Your task to perform on an android device: turn off location Image 0: 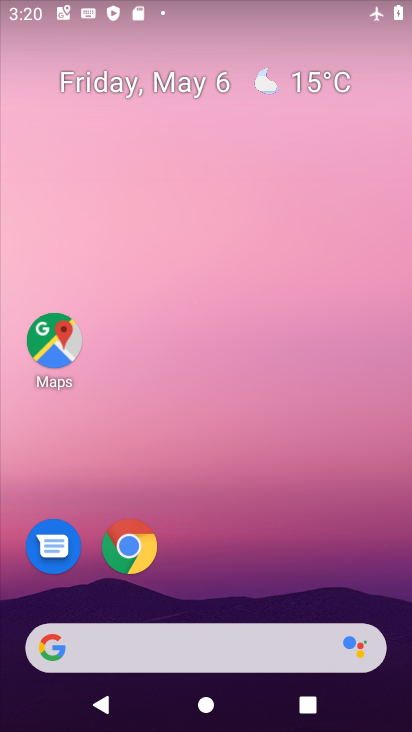
Step 0: drag from (236, 603) to (250, 116)
Your task to perform on an android device: turn off location Image 1: 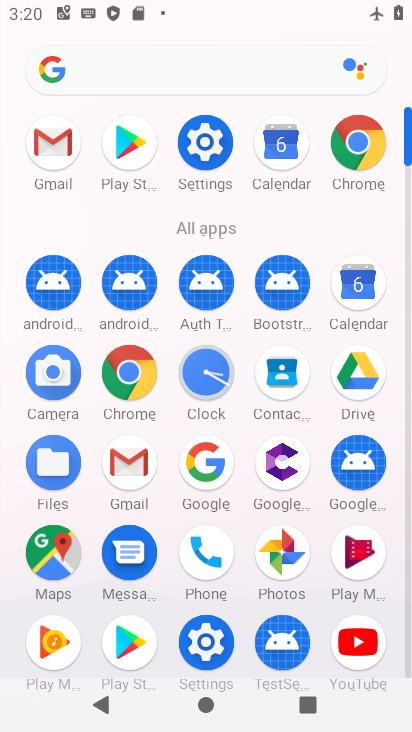
Step 1: click (196, 143)
Your task to perform on an android device: turn off location Image 2: 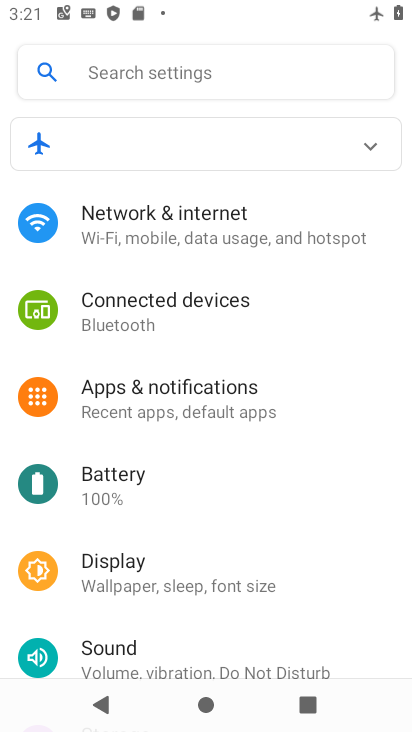
Step 2: drag from (249, 482) to (235, 199)
Your task to perform on an android device: turn off location Image 3: 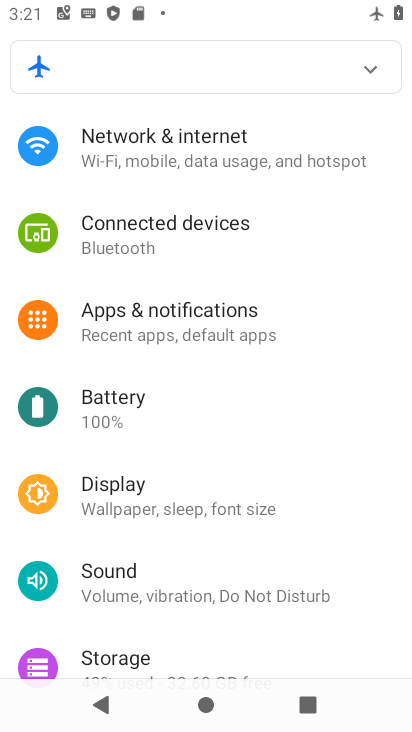
Step 3: drag from (246, 464) to (266, 162)
Your task to perform on an android device: turn off location Image 4: 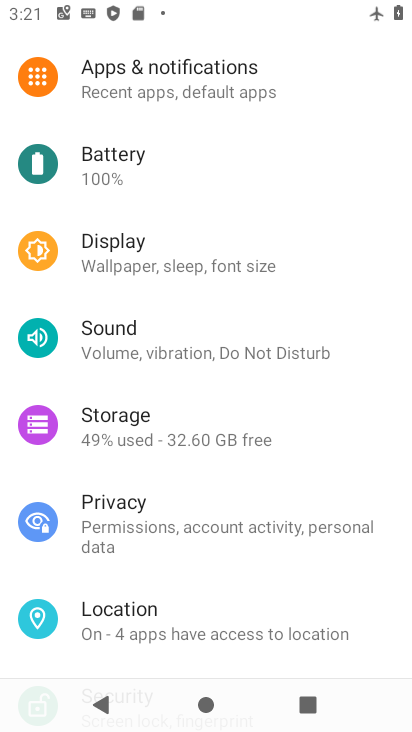
Step 4: click (250, 619)
Your task to perform on an android device: turn off location Image 5: 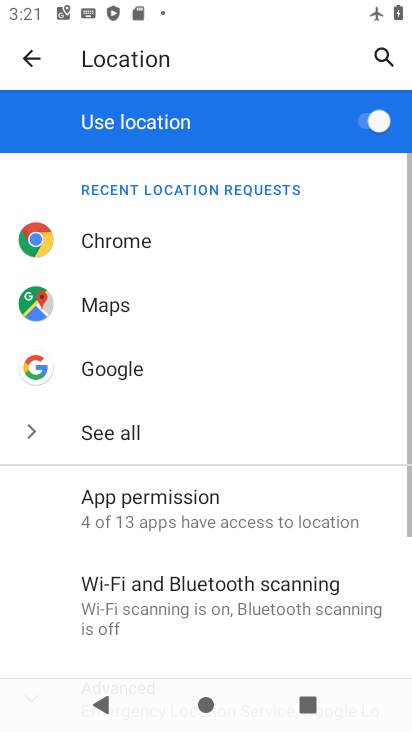
Step 5: click (380, 117)
Your task to perform on an android device: turn off location Image 6: 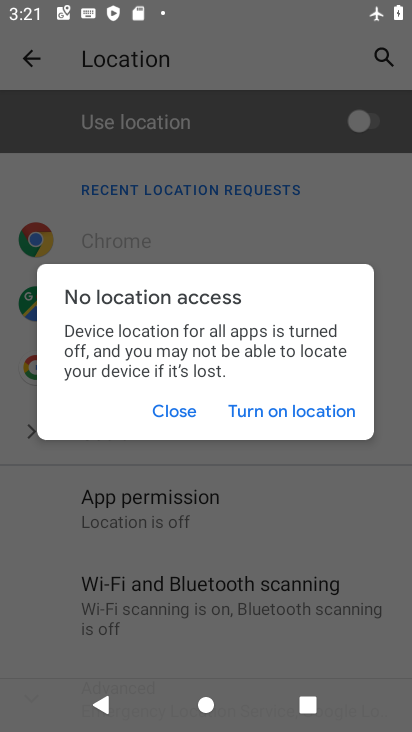
Step 6: click (171, 405)
Your task to perform on an android device: turn off location Image 7: 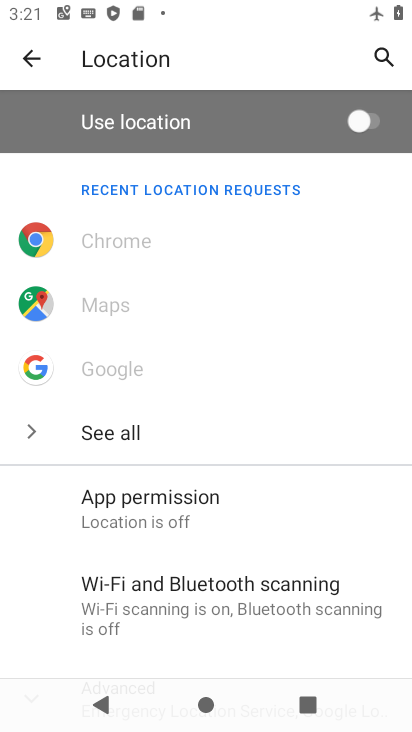
Step 7: task complete